Your task to perform on an android device: Show me popular games on the Play Store Image 0: 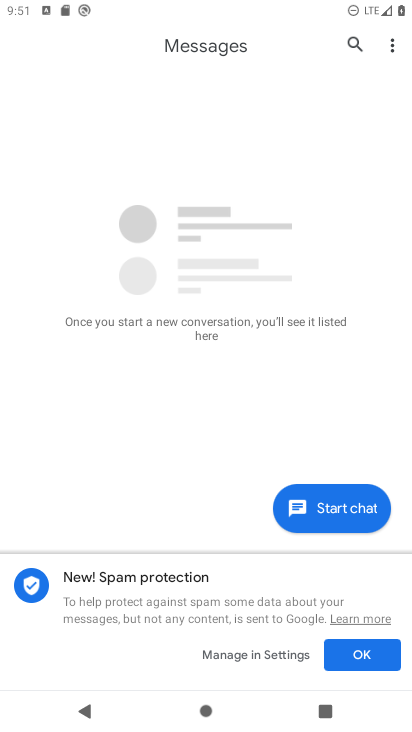
Step 0: press home button
Your task to perform on an android device: Show me popular games on the Play Store Image 1: 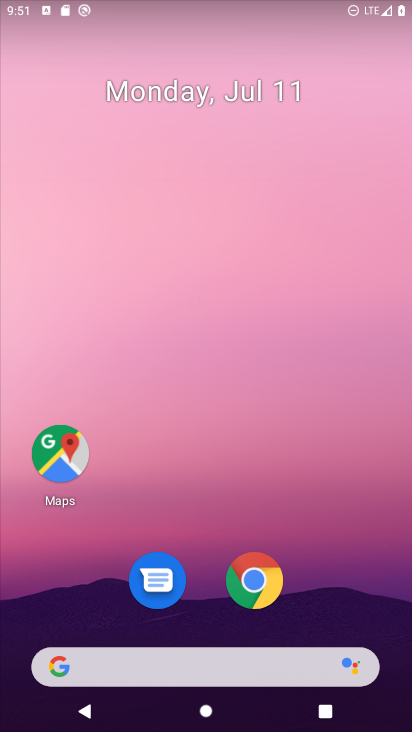
Step 1: drag from (226, 387) to (208, 26)
Your task to perform on an android device: Show me popular games on the Play Store Image 2: 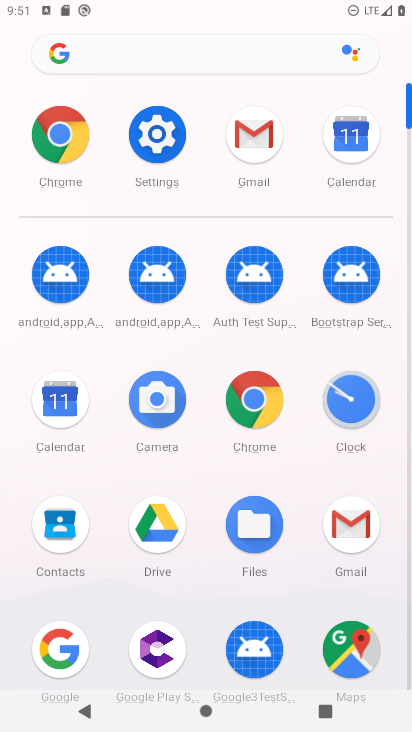
Step 2: drag from (207, 426) to (191, 111)
Your task to perform on an android device: Show me popular games on the Play Store Image 3: 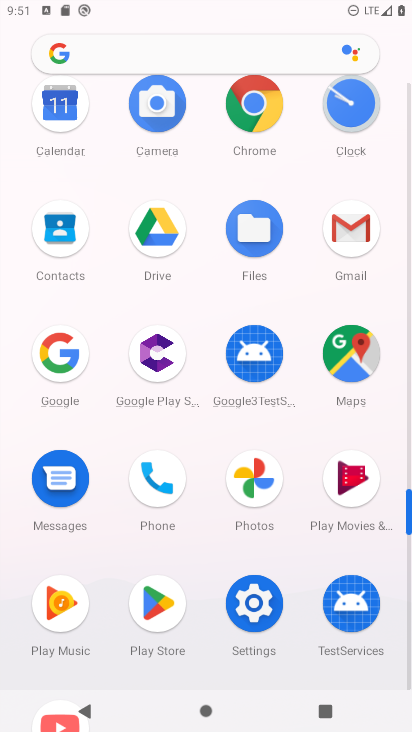
Step 3: click (170, 598)
Your task to perform on an android device: Show me popular games on the Play Store Image 4: 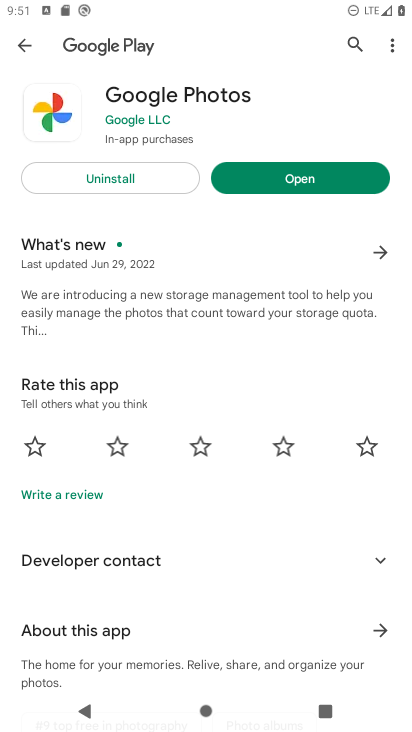
Step 4: click (28, 39)
Your task to perform on an android device: Show me popular games on the Play Store Image 5: 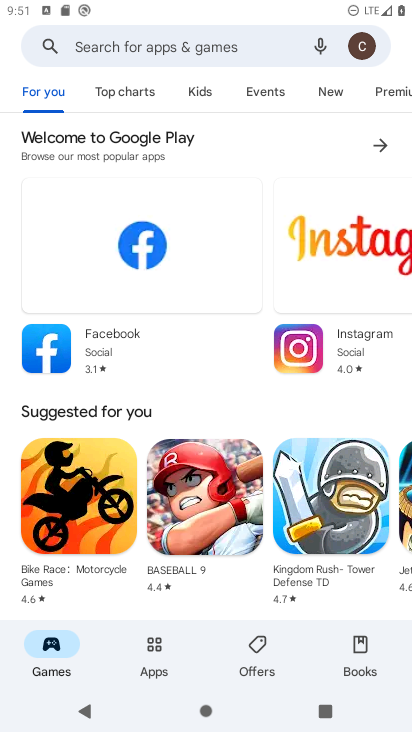
Step 5: drag from (215, 485) to (244, 157)
Your task to perform on an android device: Show me popular games on the Play Store Image 6: 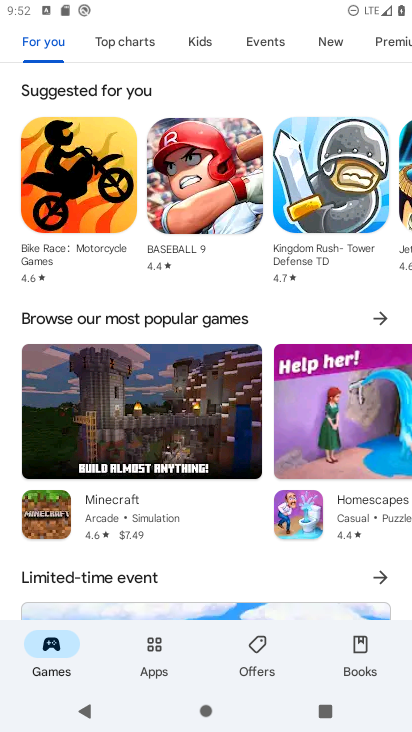
Step 6: click (379, 314)
Your task to perform on an android device: Show me popular games on the Play Store Image 7: 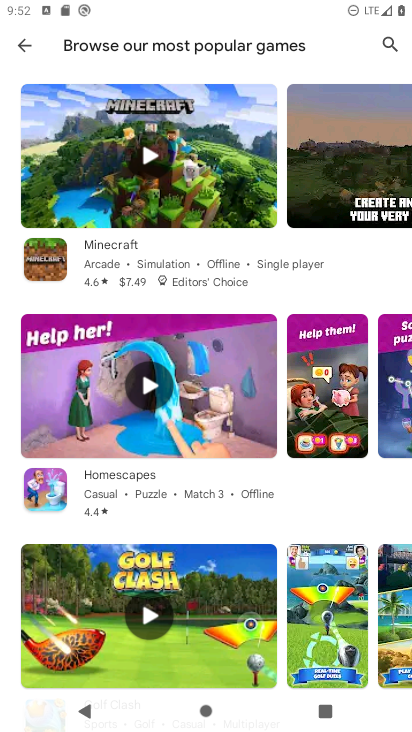
Step 7: task complete